Your task to perform on an android device: Go to Google maps Image 0: 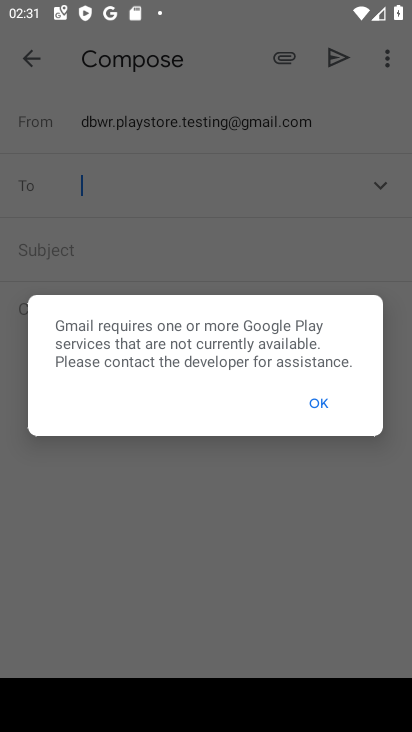
Step 0: press home button
Your task to perform on an android device: Go to Google maps Image 1: 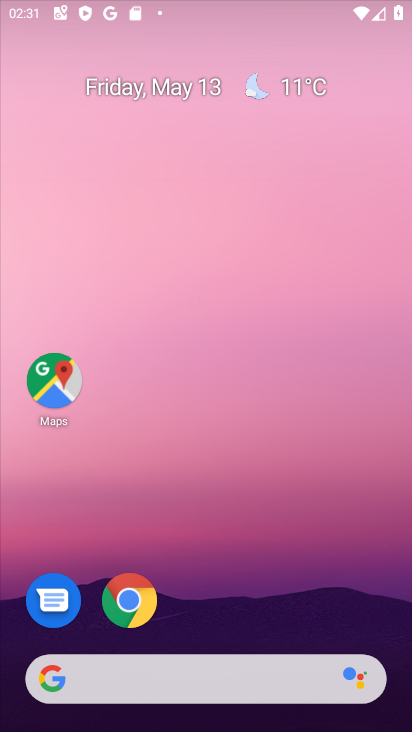
Step 1: drag from (225, 555) to (288, 237)
Your task to perform on an android device: Go to Google maps Image 2: 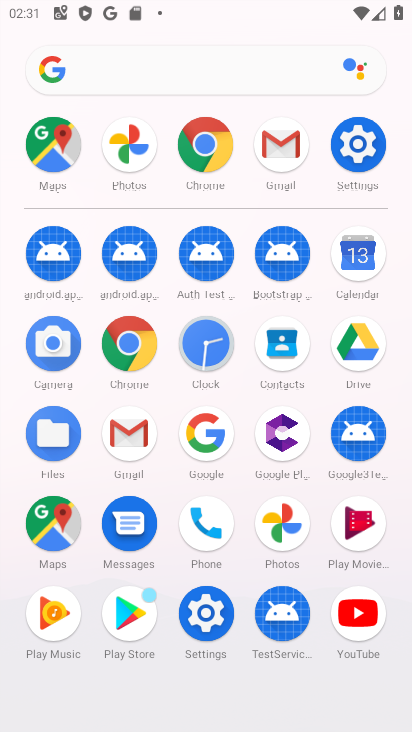
Step 2: click (51, 513)
Your task to perform on an android device: Go to Google maps Image 3: 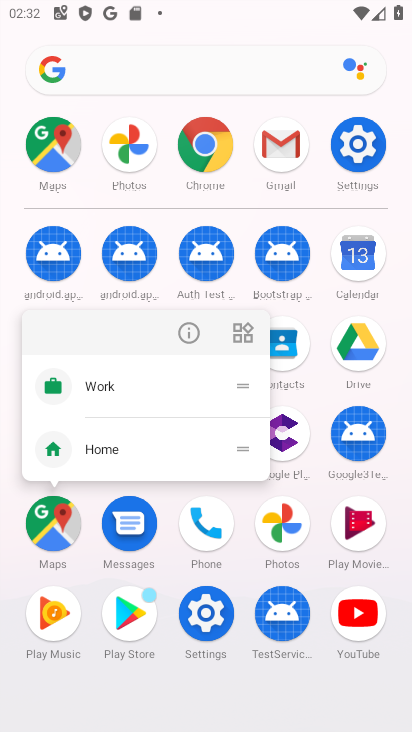
Step 3: click (188, 338)
Your task to perform on an android device: Go to Google maps Image 4: 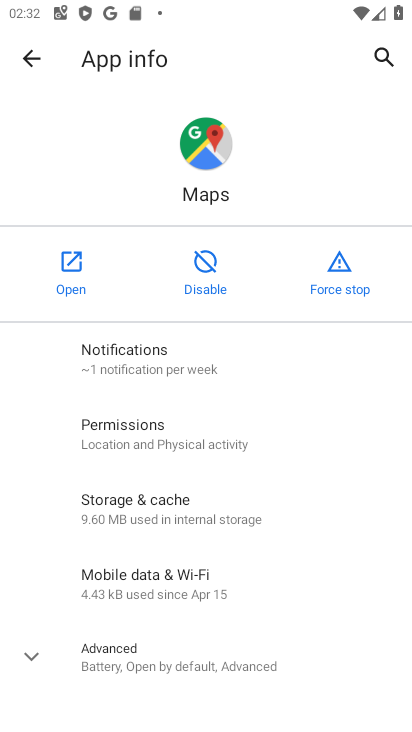
Step 4: click (69, 274)
Your task to perform on an android device: Go to Google maps Image 5: 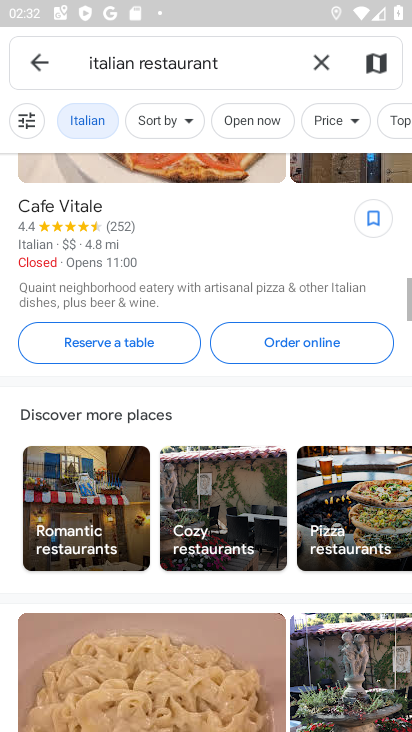
Step 5: task complete